Your task to perform on an android device: Open privacy settings Image 0: 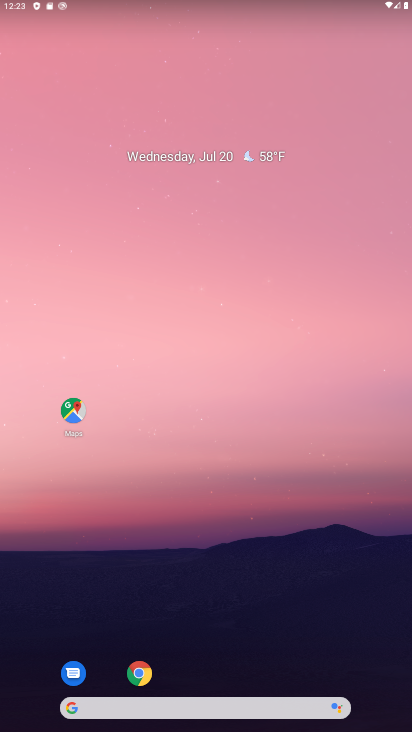
Step 0: drag from (202, 625) to (281, 106)
Your task to perform on an android device: Open privacy settings Image 1: 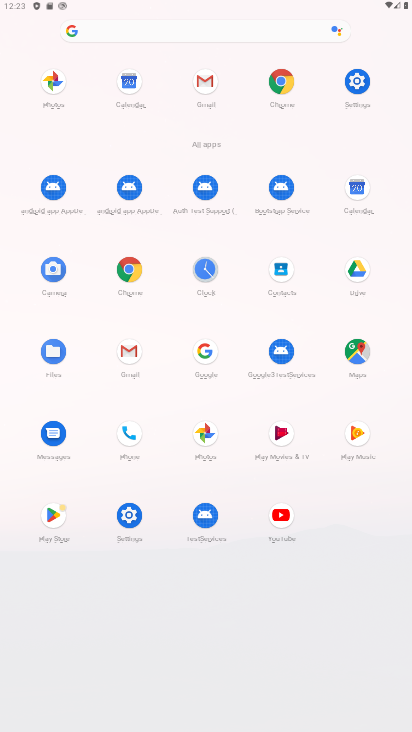
Step 1: click (130, 529)
Your task to perform on an android device: Open privacy settings Image 2: 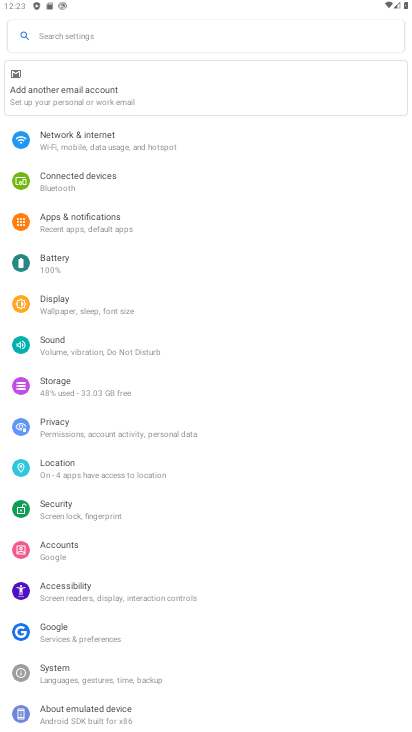
Step 2: click (91, 432)
Your task to perform on an android device: Open privacy settings Image 3: 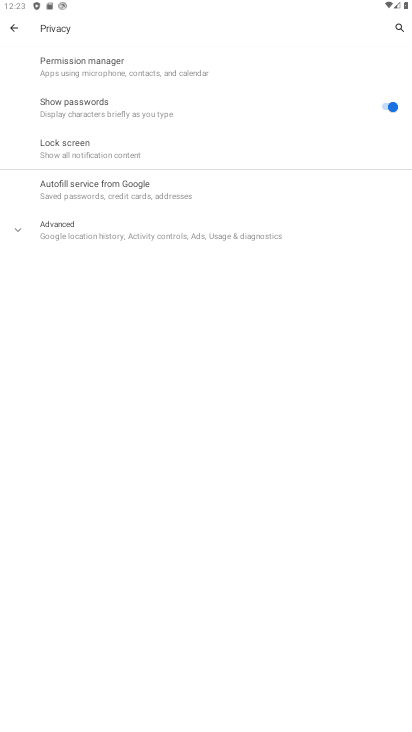
Step 3: task complete